Your task to perform on an android device: Go to Maps Image 0: 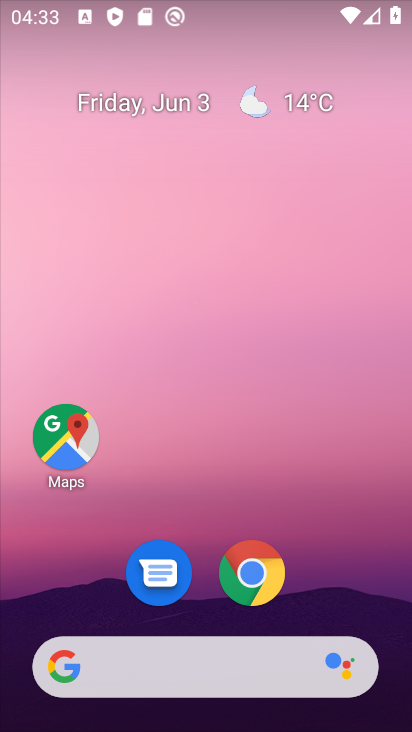
Step 0: drag from (341, 599) to (350, 47)
Your task to perform on an android device: Go to Maps Image 1: 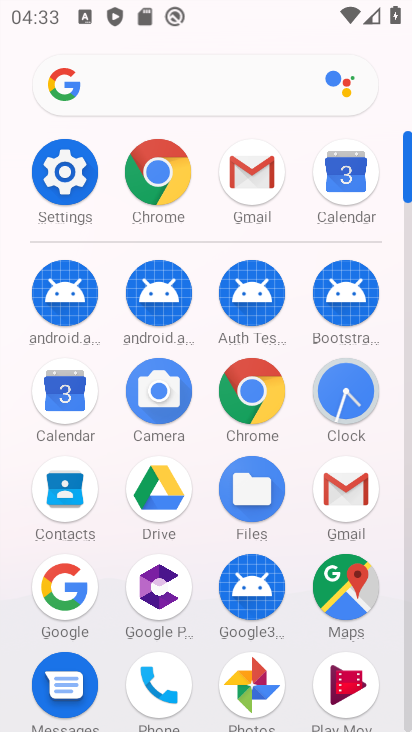
Step 1: click (348, 600)
Your task to perform on an android device: Go to Maps Image 2: 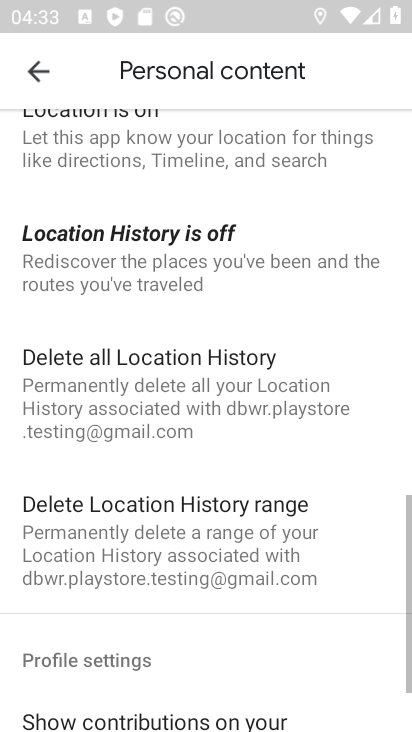
Step 2: task complete